Your task to perform on an android device: Open the map Image 0: 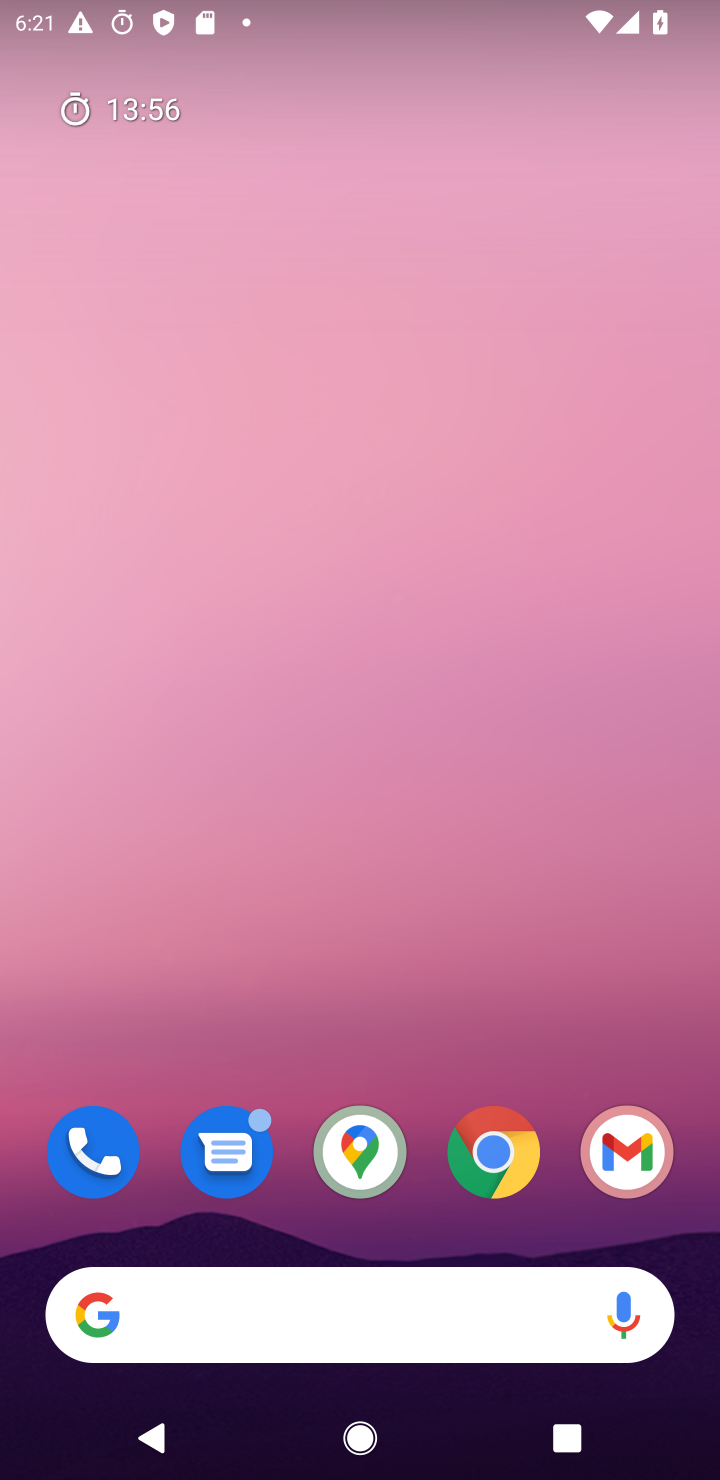
Step 0: click (510, 1159)
Your task to perform on an android device: Open the map Image 1: 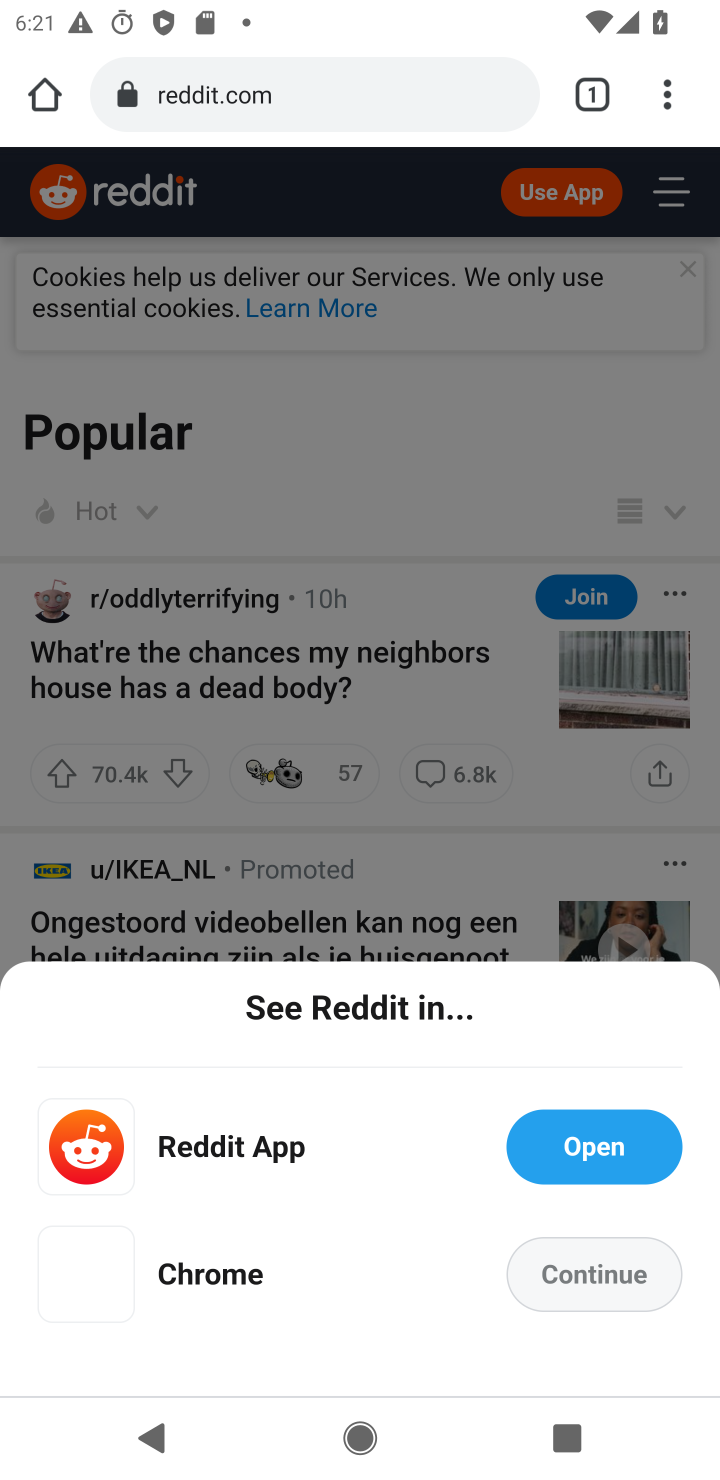
Step 1: click (282, 93)
Your task to perform on an android device: Open the map Image 2: 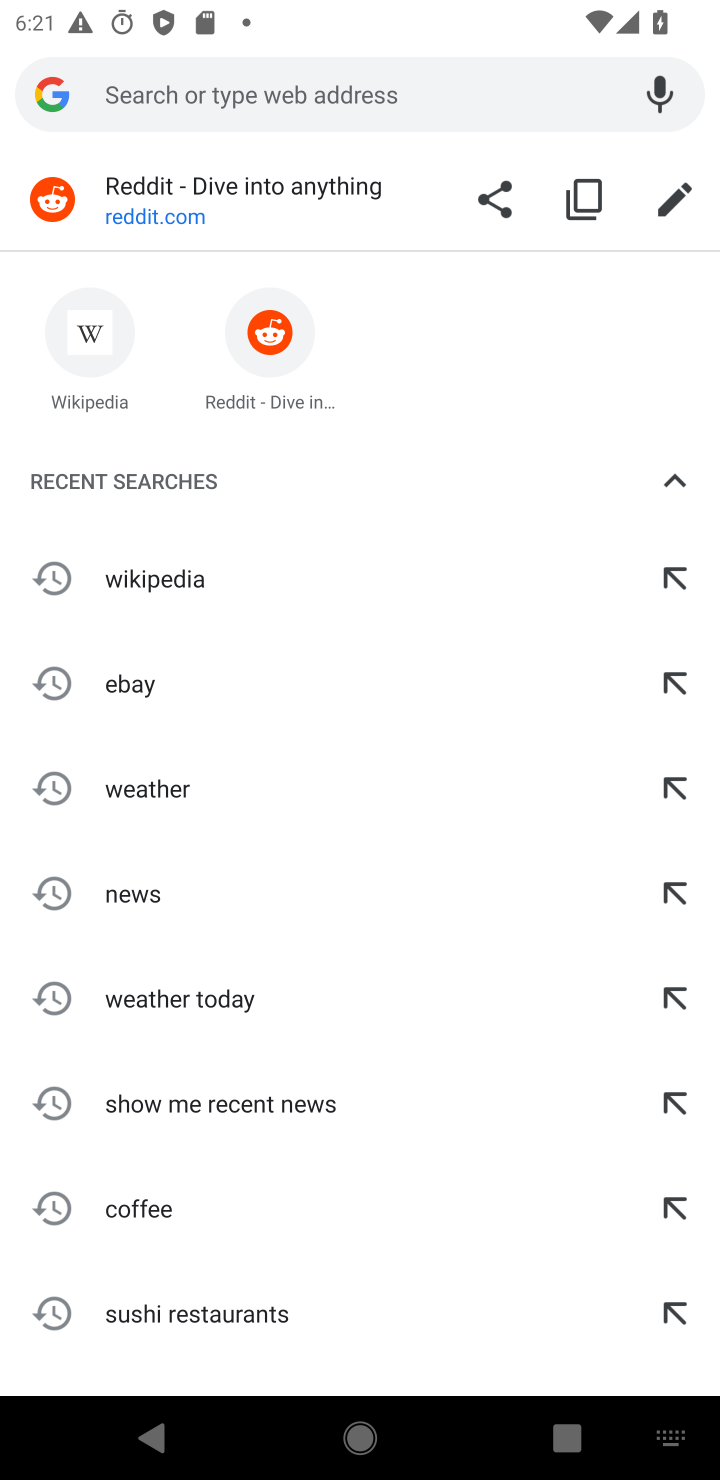
Step 2: press home button
Your task to perform on an android device: Open the map Image 3: 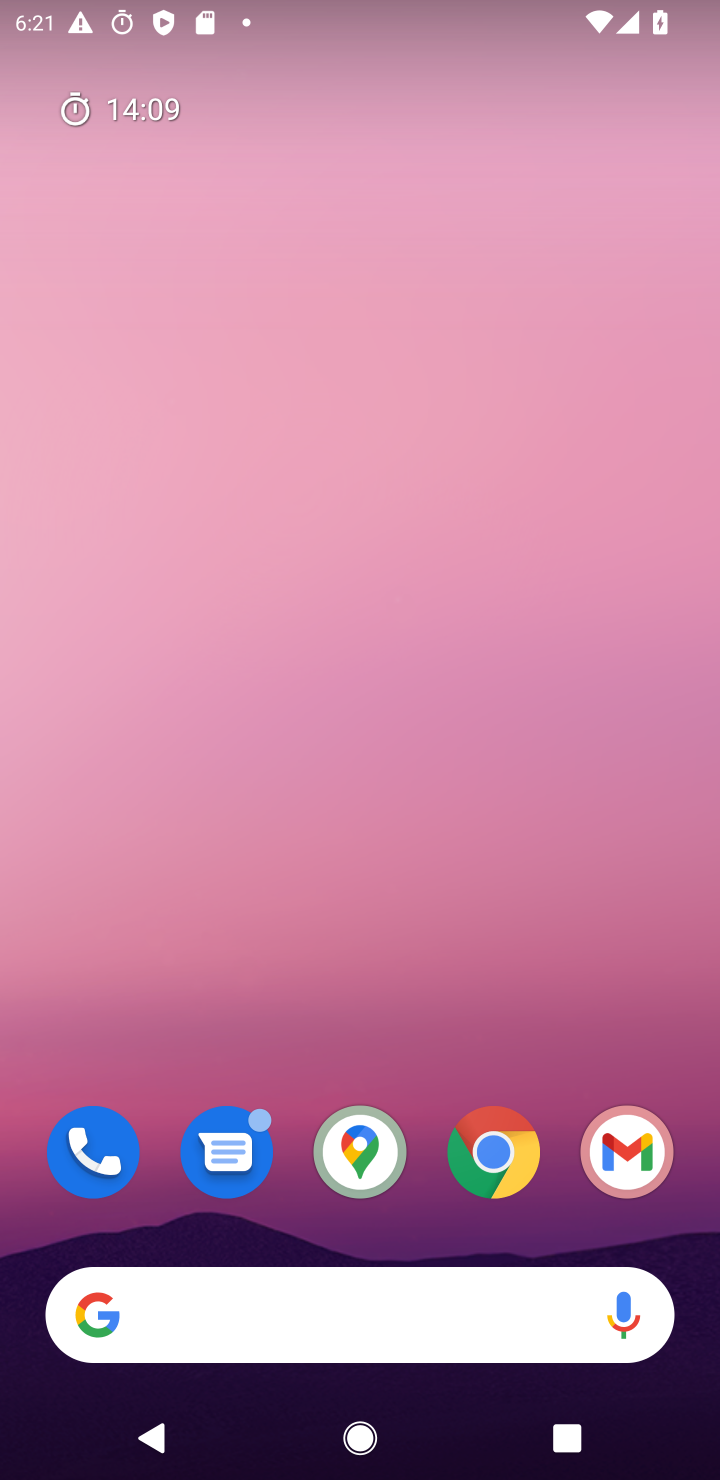
Step 3: click (362, 1148)
Your task to perform on an android device: Open the map Image 4: 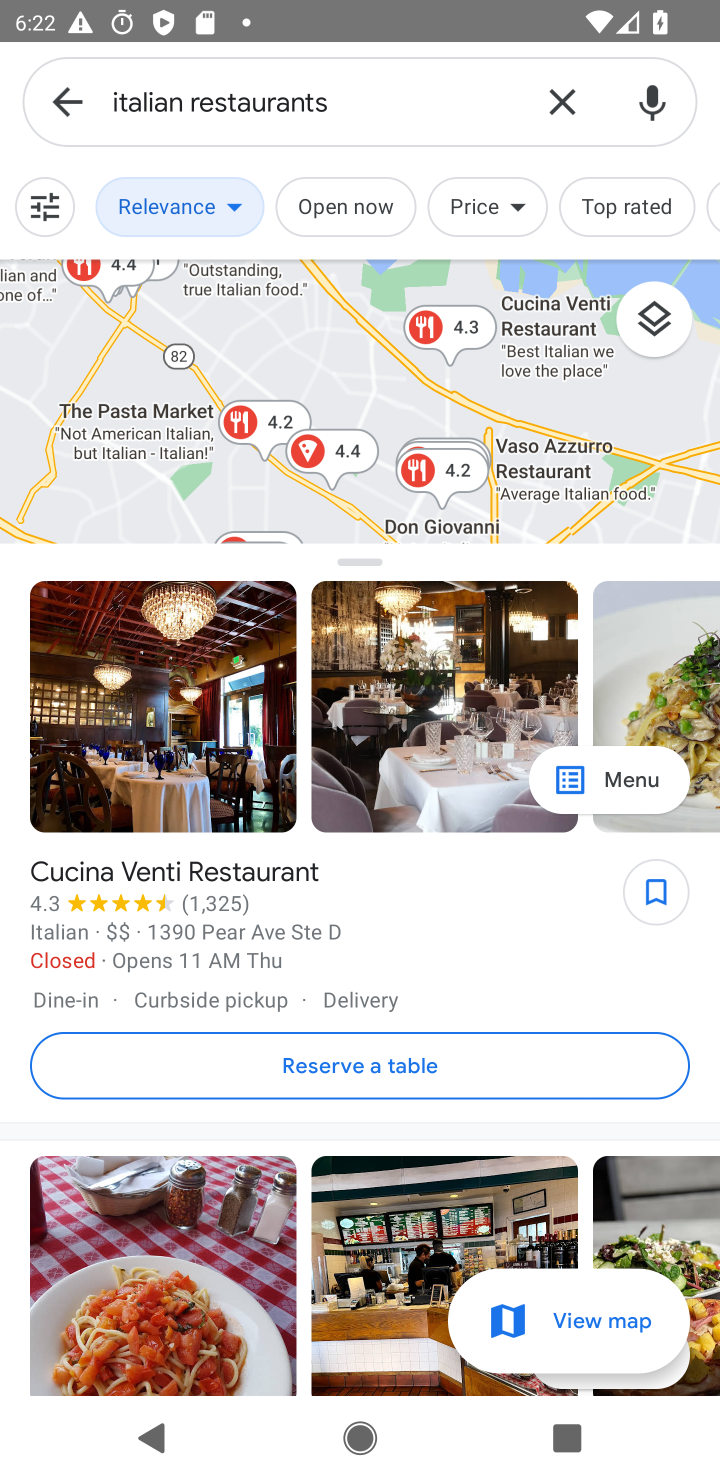
Step 4: click (53, 103)
Your task to perform on an android device: Open the map Image 5: 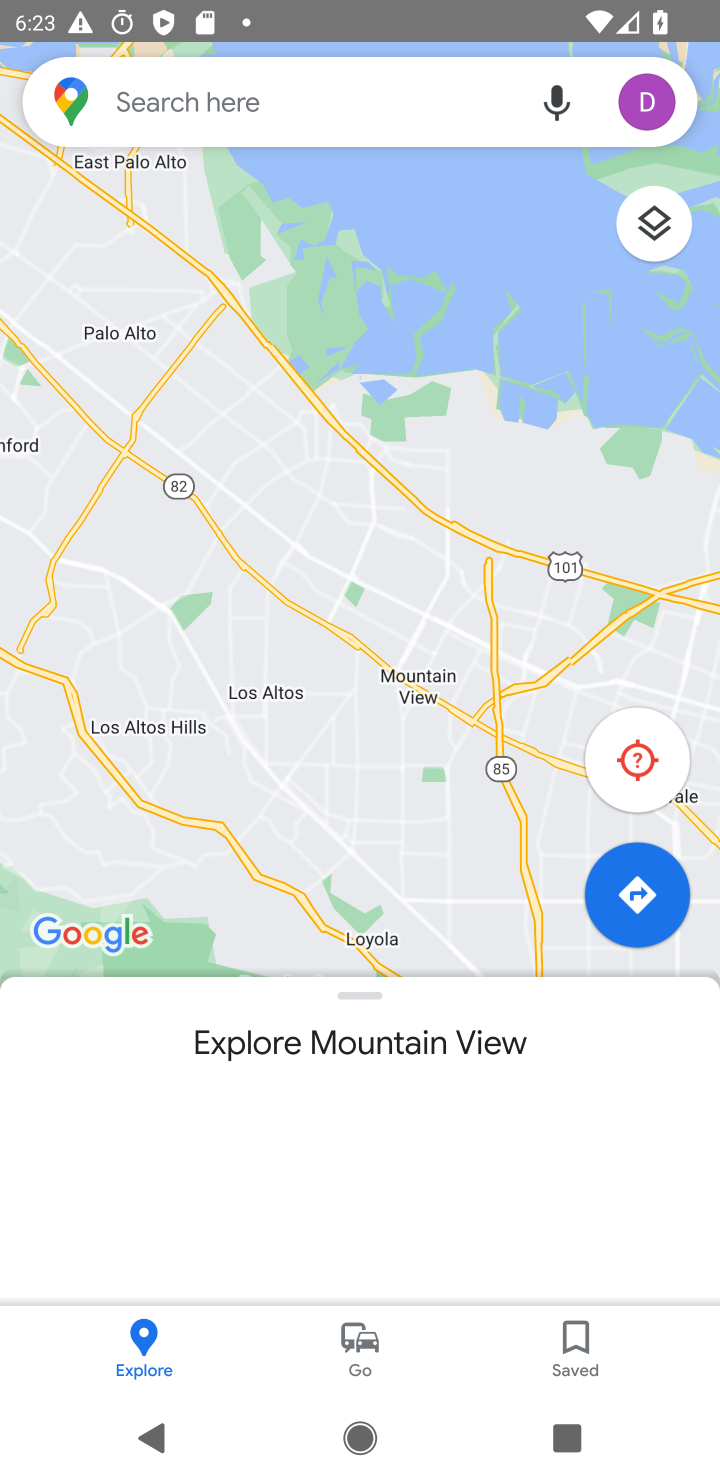
Step 5: task complete